Your task to perform on an android device: Open Google Chrome and click the shortcut for Amazon.com Image 0: 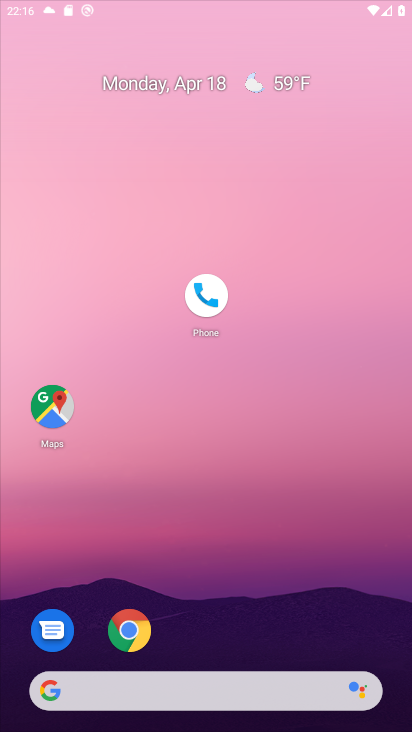
Step 0: drag from (290, 162) to (302, 117)
Your task to perform on an android device: Open Google Chrome and click the shortcut for Amazon.com Image 1: 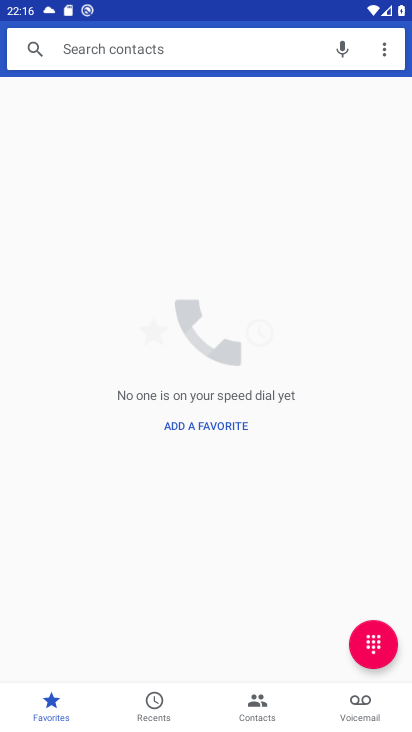
Step 1: press home button
Your task to perform on an android device: Open Google Chrome and click the shortcut for Amazon.com Image 2: 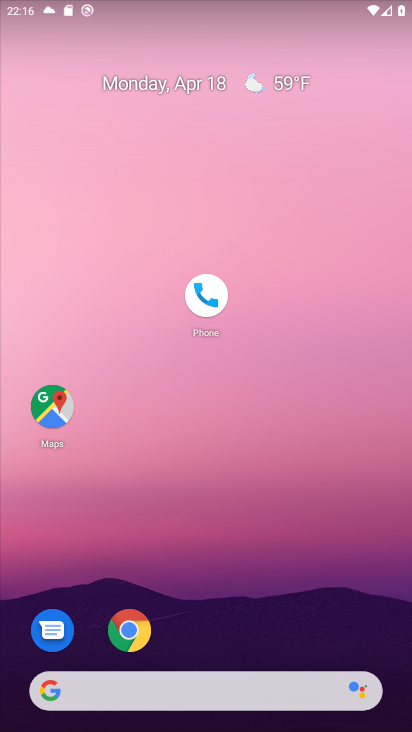
Step 2: drag from (283, 583) to (310, 252)
Your task to perform on an android device: Open Google Chrome and click the shortcut for Amazon.com Image 3: 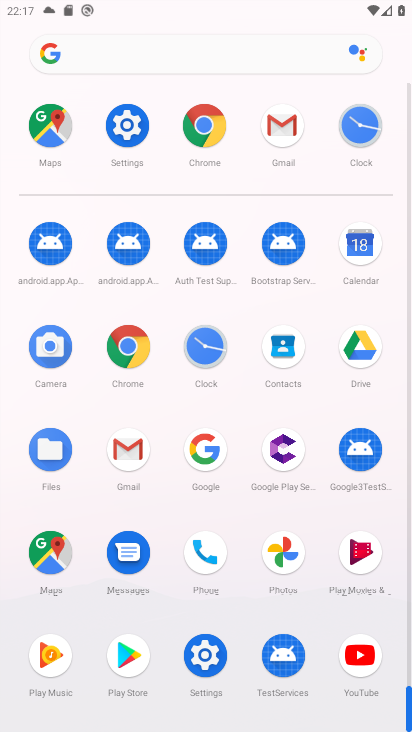
Step 3: click (130, 350)
Your task to perform on an android device: Open Google Chrome and click the shortcut for Amazon.com Image 4: 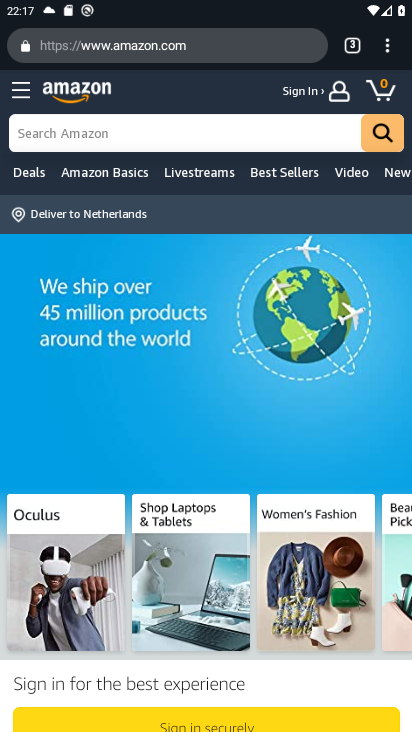
Step 4: task complete